Your task to perform on an android device: turn on notifications settings in the gmail app Image 0: 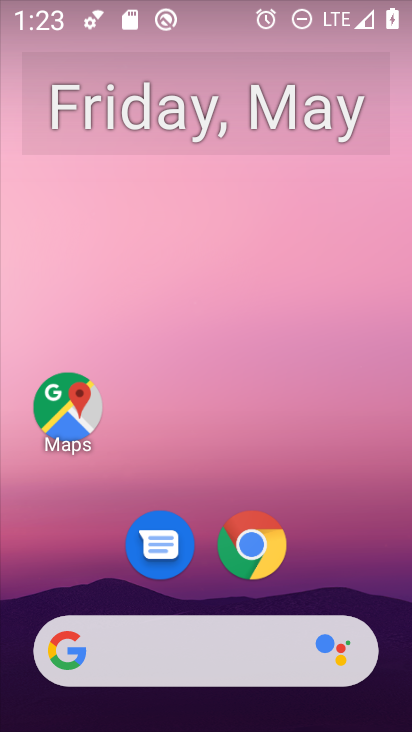
Step 0: drag from (348, 587) to (305, 263)
Your task to perform on an android device: turn on notifications settings in the gmail app Image 1: 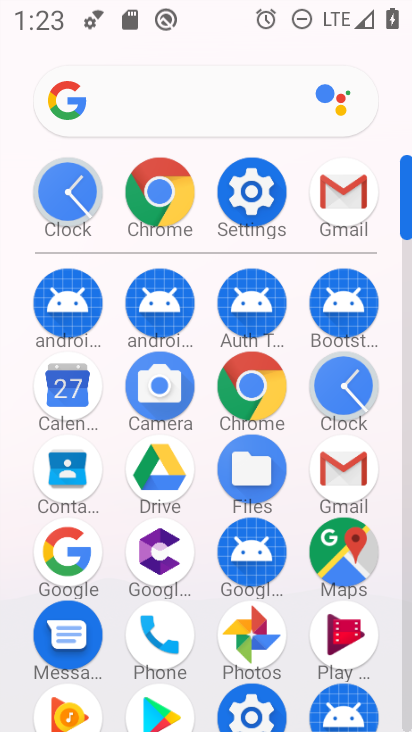
Step 1: click (335, 464)
Your task to perform on an android device: turn on notifications settings in the gmail app Image 2: 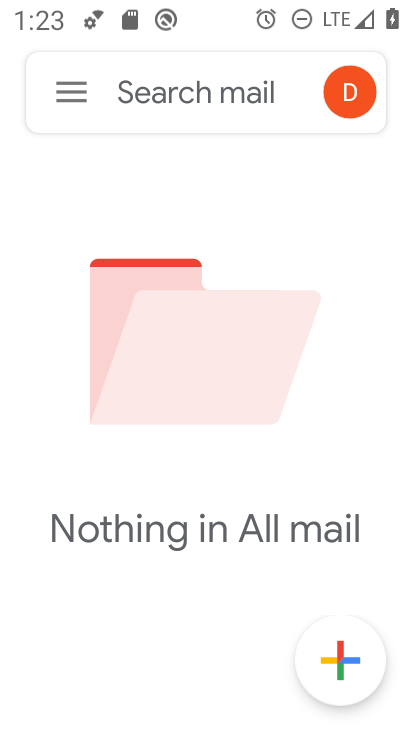
Step 2: click (72, 95)
Your task to perform on an android device: turn on notifications settings in the gmail app Image 3: 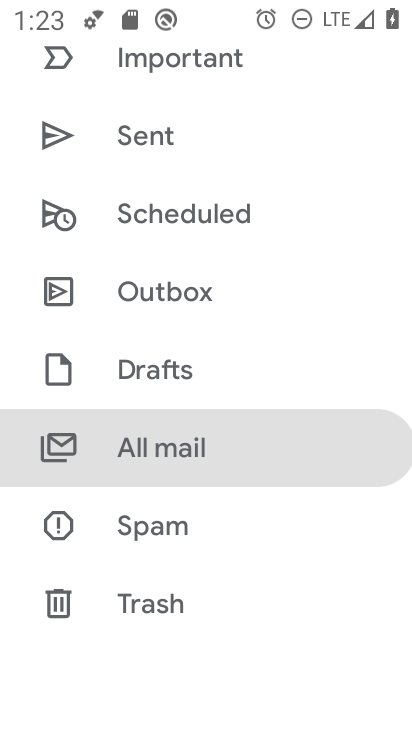
Step 3: drag from (218, 638) to (208, 131)
Your task to perform on an android device: turn on notifications settings in the gmail app Image 4: 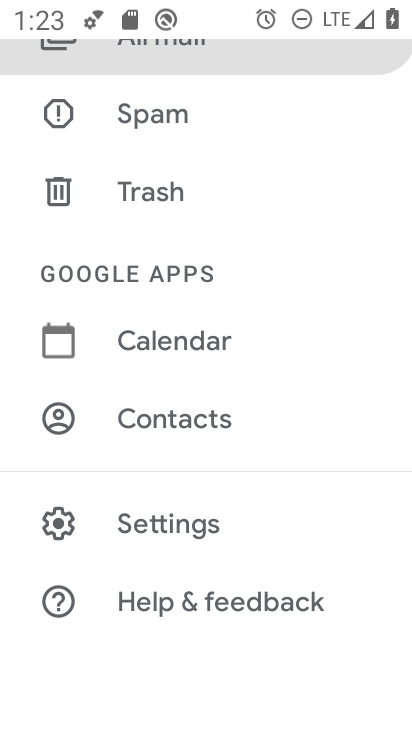
Step 4: click (180, 527)
Your task to perform on an android device: turn on notifications settings in the gmail app Image 5: 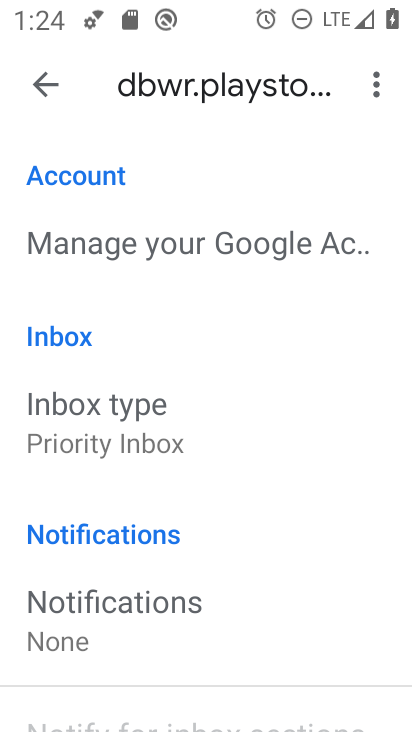
Step 5: click (144, 639)
Your task to perform on an android device: turn on notifications settings in the gmail app Image 6: 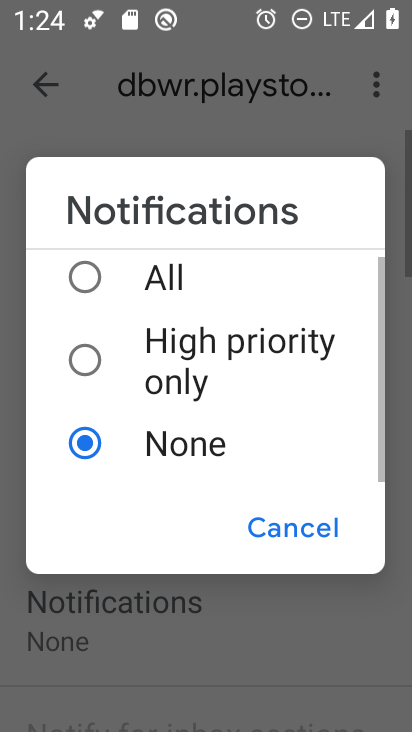
Step 6: click (138, 282)
Your task to perform on an android device: turn on notifications settings in the gmail app Image 7: 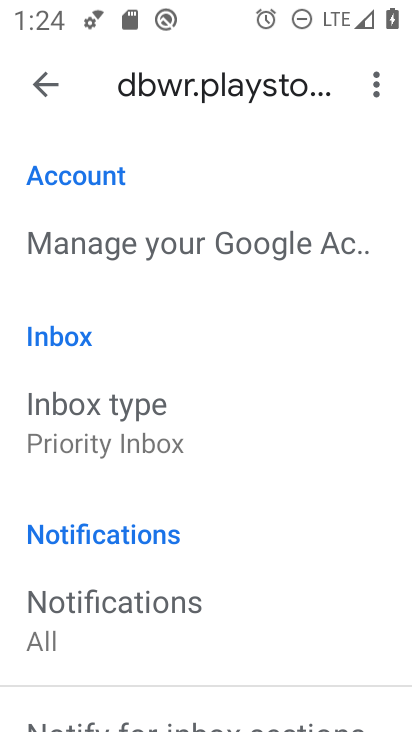
Step 7: task complete